Your task to perform on an android device: Search for sushi restaurants on Maps Image 0: 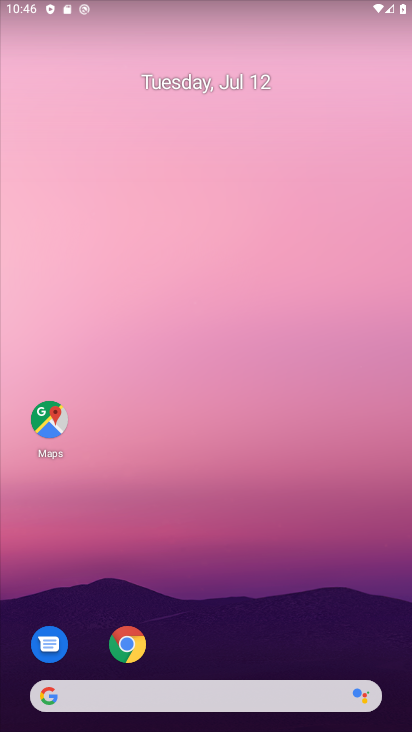
Step 0: click (51, 432)
Your task to perform on an android device: Search for sushi restaurants on Maps Image 1: 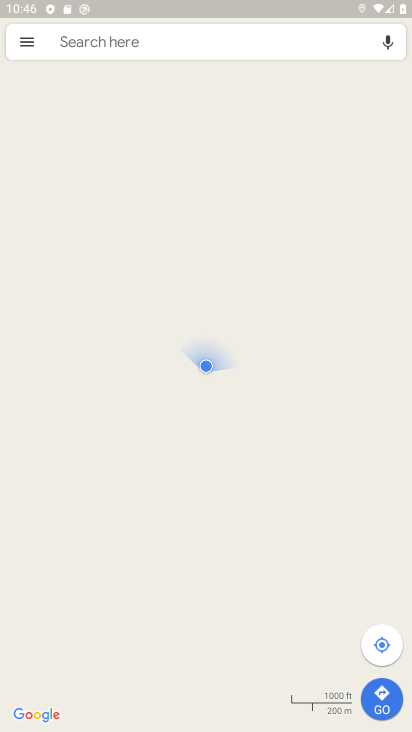
Step 1: click (194, 33)
Your task to perform on an android device: Search for sushi restaurants on Maps Image 2: 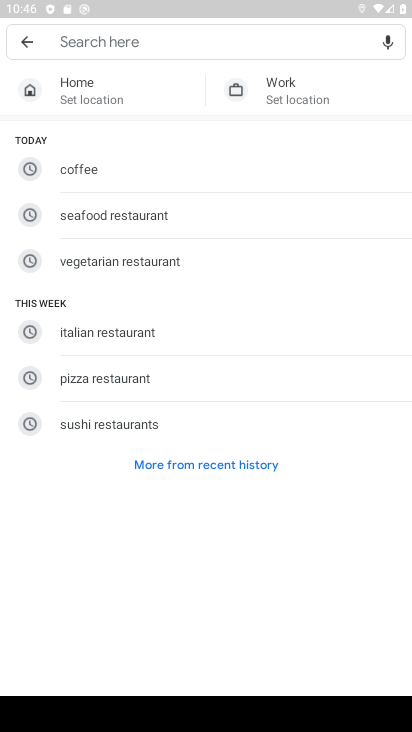
Step 2: type "sushi restaurants"
Your task to perform on an android device: Search for sushi restaurants on Maps Image 3: 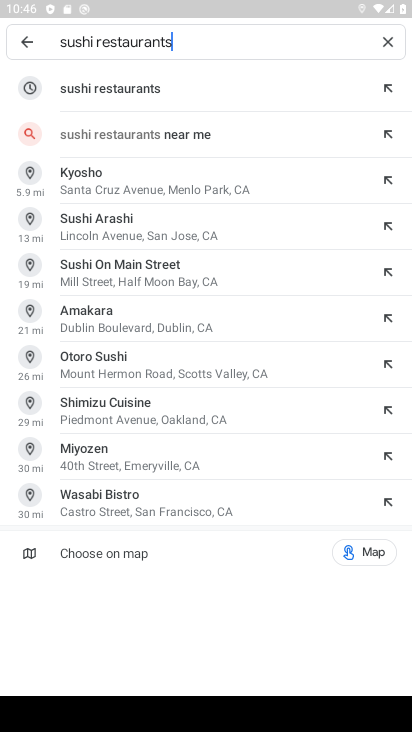
Step 3: click (193, 97)
Your task to perform on an android device: Search for sushi restaurants on Maps Image 4: 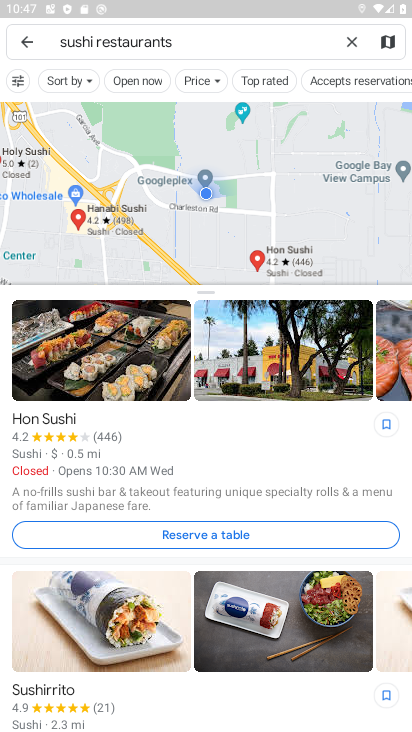
Step 4: task complete